Your task to perform on an android device: see tabs open on other devices in the chrome app Image 0: 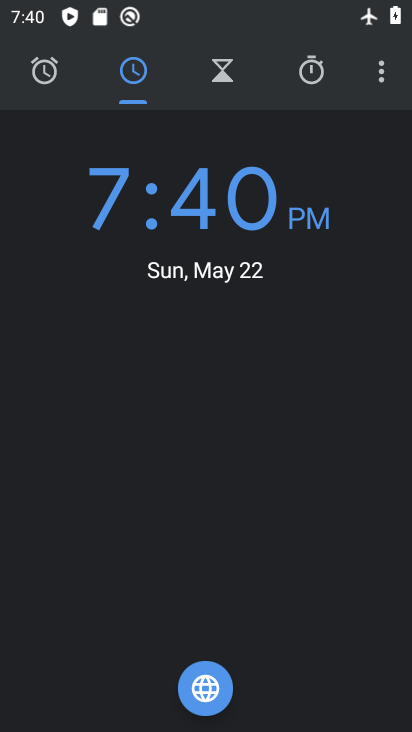
Step 0: press home button
Your task to perform on an android device: see tabs open on other devices in the chrome app Image 1: 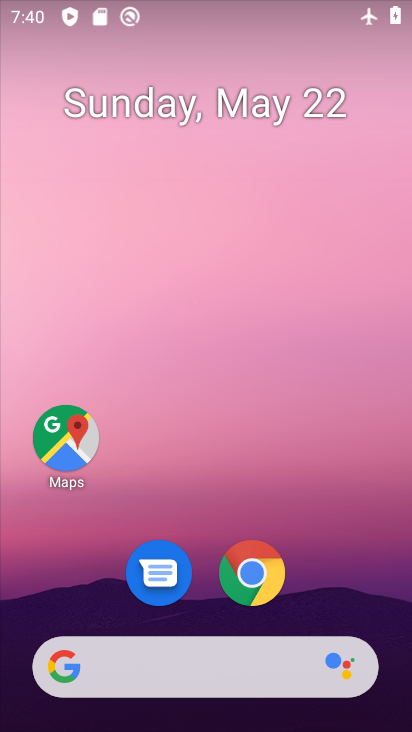
Step 1: click (250, 582)
Your task to perform on an android device: see tabs open on other devices in the chrome app Image 2: 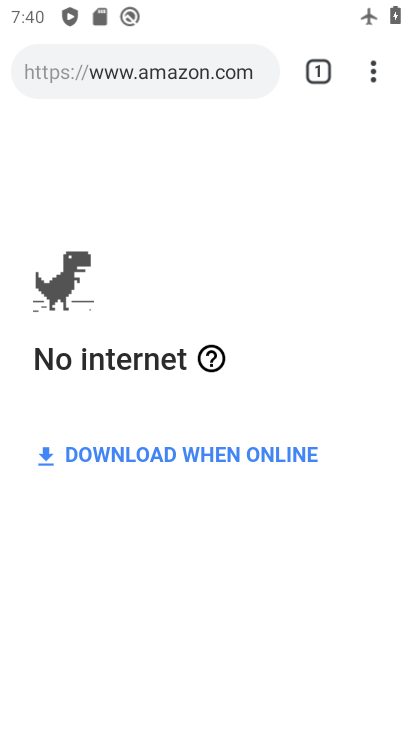
Step 2: click (319, 78)
Your task to perform on an android device: see tabs open on other devices in the chrome app Image 3: 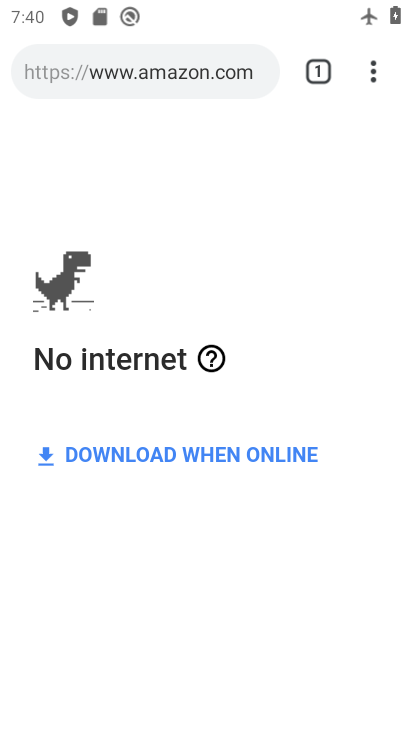
Step 3: click (244, 119)
Your task to perform on an android device: see tabs open on other devices in the chrome app Image 4: 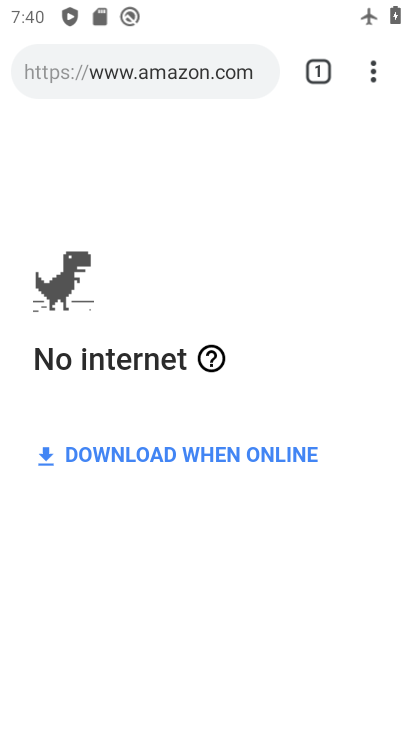
Step 4: click (316, 76)
Your task to perform on an android device: see tabs open on other devices in the chrome app Image 5: 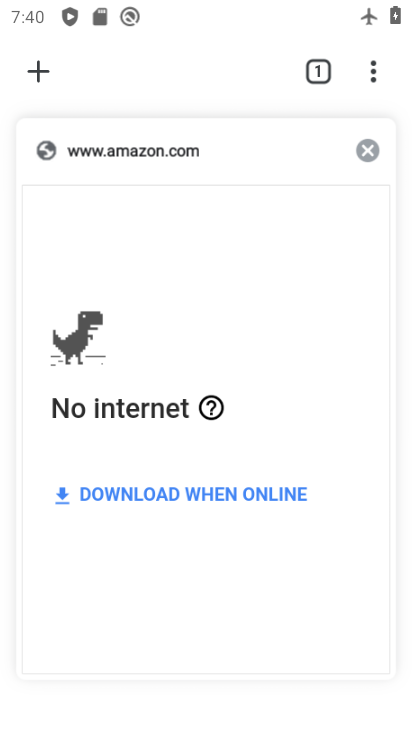
Step 5: task complete